Your task to perform on an android device: Go to Yahoo.com Image 0: 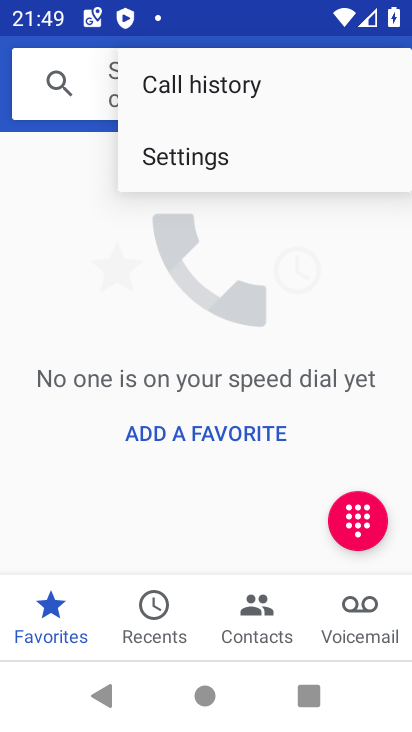
Step 0: press home button
Your task to perform on an android device: Go to Yahoo.com Image 1: 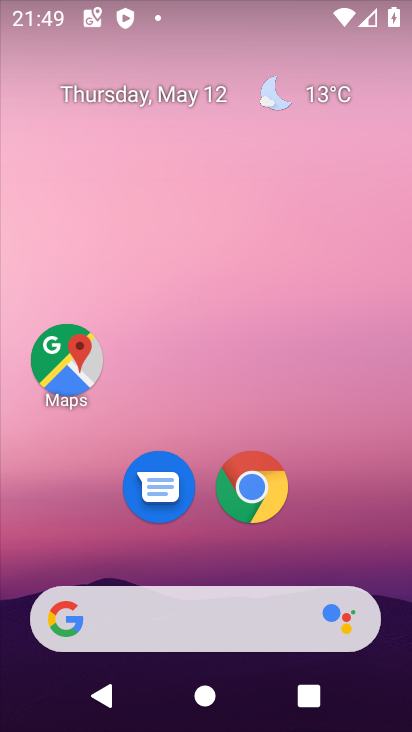
Step 1: click (252, 494)
Your task to perform on an android device: Go to Yahoo.com Image 2: 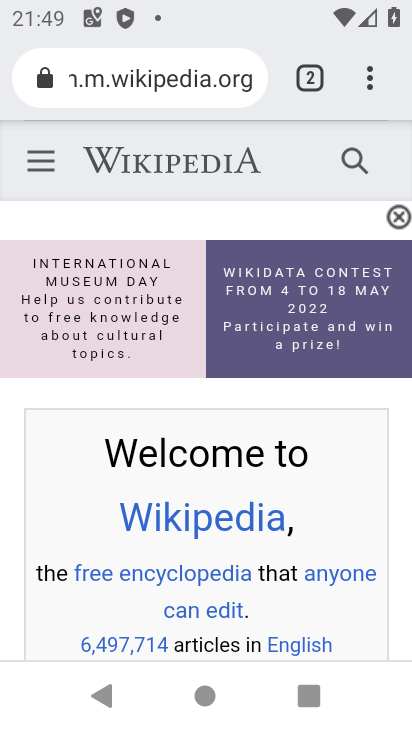
Step 2: click (309, 83)
Your task to perform on an android device: Go to Yahoo.com Image 3: 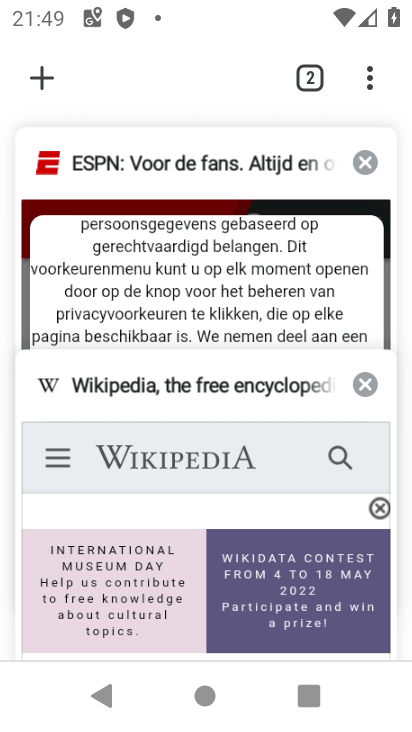
Step 3: click (57, 97)
Your task to perform on an android device: Go to Yahoo.com Image 4: 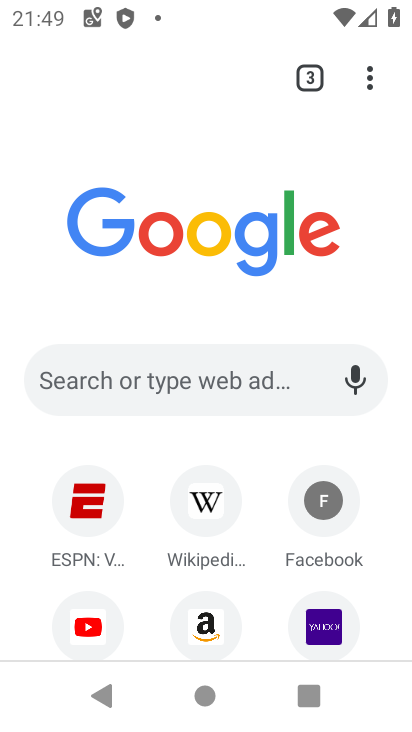
Step 4: click (354, 606)
Your task to perform on an android device: Go to Yahoo.com Image 5: 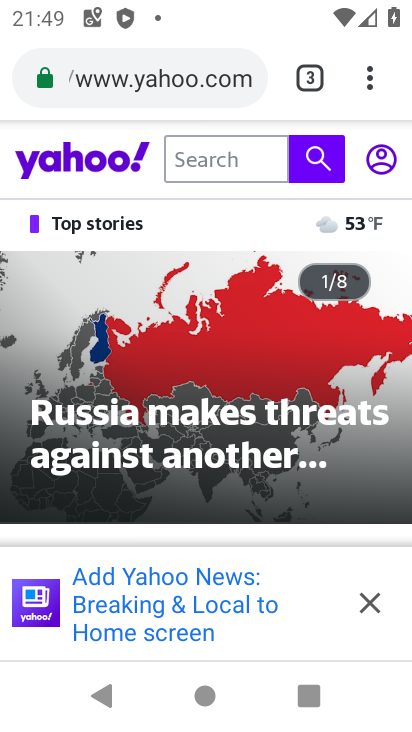
Step 5: task complete